Your task to perform on an android device: Open the phone app and click the voicemail tab. Image 0: 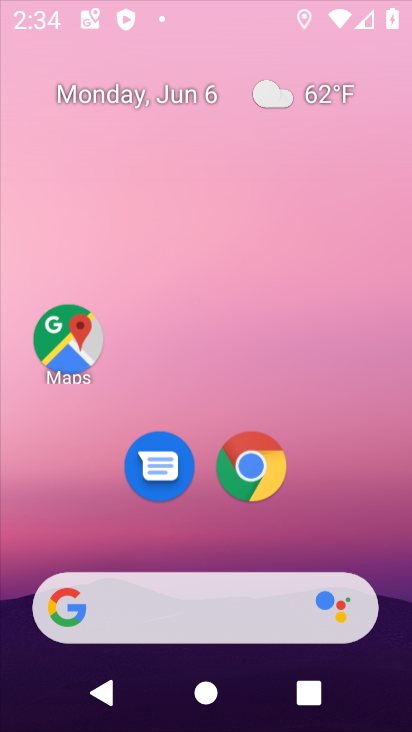
Step 0: drag from (232, 631) to (205, 136)
Your task to perform on an android device: Open the phone app and click the voicemail tab. Image 1: 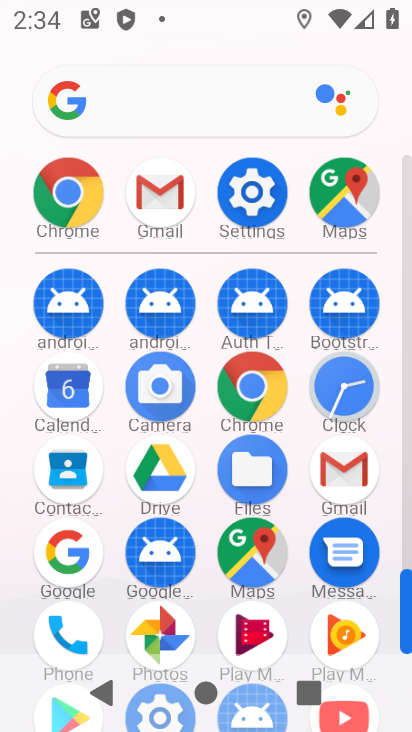
Step 1: click (59, 629)
Your task to perform on an android device: Open the phone app and click the voicemail tab. Image 2: 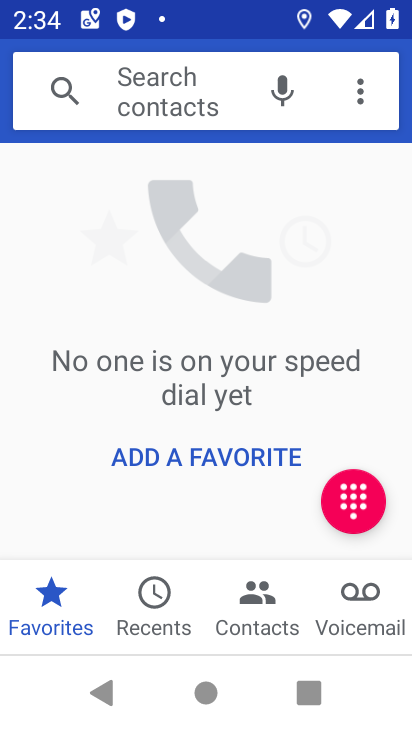
Step 2: click (372, 587)
Your task to perform on an android device: Open the phone app and click the voicemail tab. Image 3: 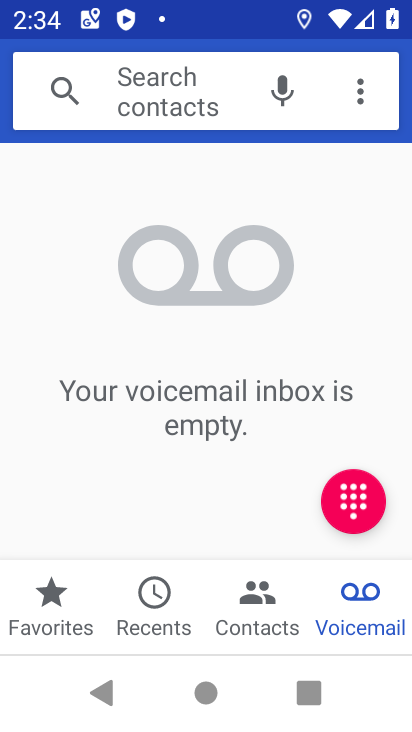
Step 3: task complete